Your task to perform on an android device: Open calendar and show me the third week of next month Image 0: 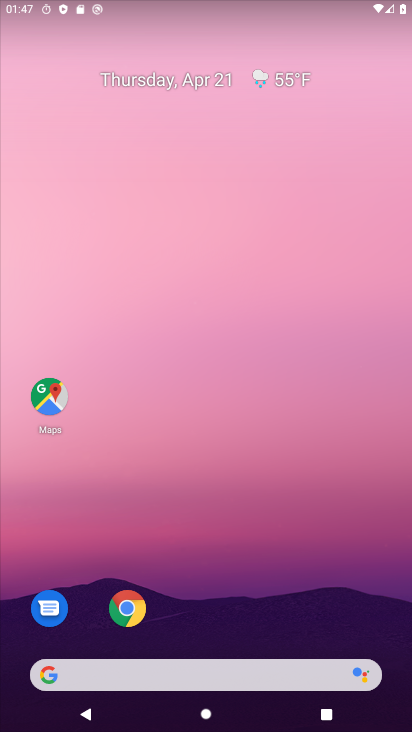
Step 0: drag from (257, 588) to (209, 156)
Your task to perform on an android device: Open calendar and show me the third week of next month Image 1: 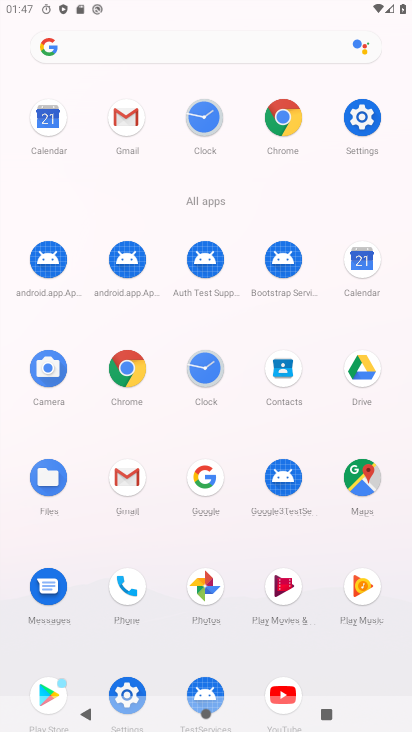
Step 1: click (55, 119)
Your task to perform on an android device: Open calendar and show me the third week of next month Image 2: 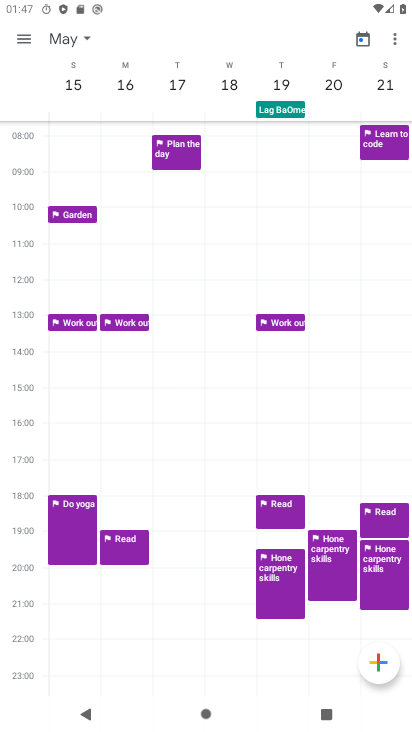
Step 2: task complete